Your task to perform on an android device: check storage Image 0: 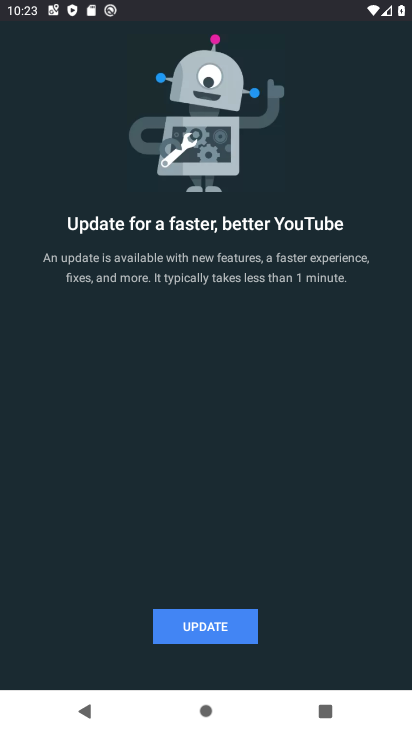
Step 0: drag from (243, 539) to (220, 132)
Your task to perform on an android device: check storage Image 1: 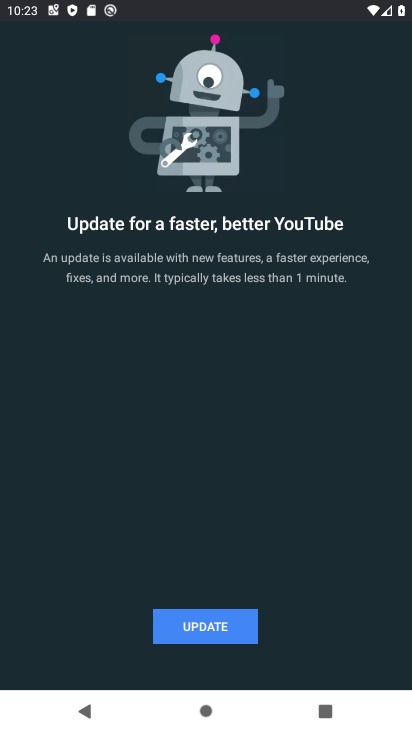
Step 1: press home button
Your task to perform on an android device: check storage Image 2: 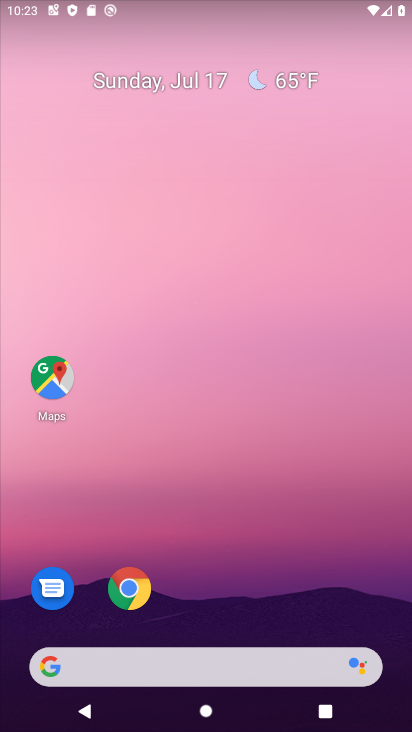
Step 2: drag from (217, 570) to (211, 72)
Your task to perform on an android device: check storage Image 3: 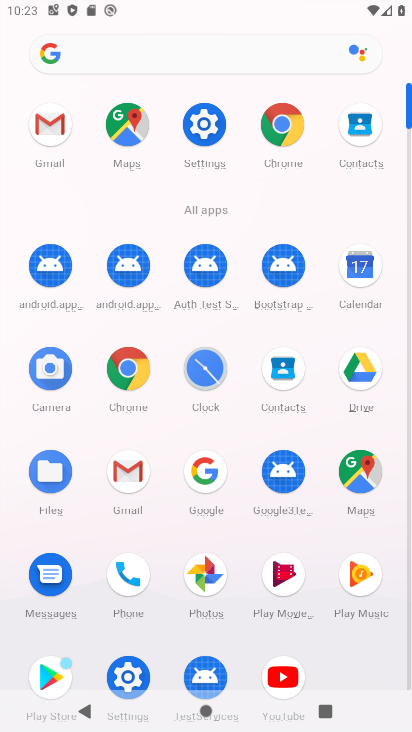
Step 3: click (202, 129)
Your task to perform on an android device: check storage Image 4: 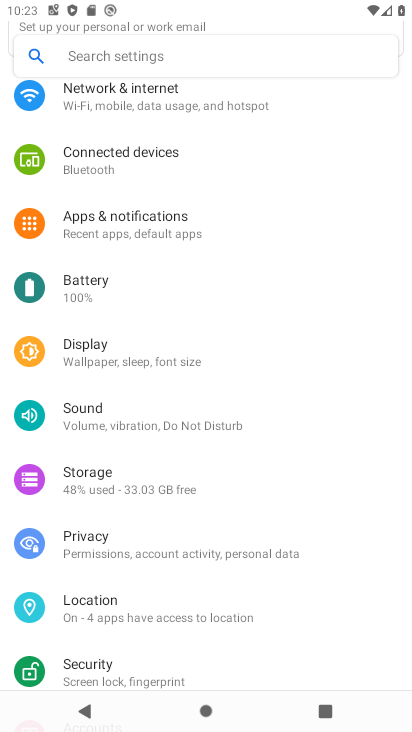
Step 4: click (98, 464)
Your task to perform on an android device: check storage Image 5: 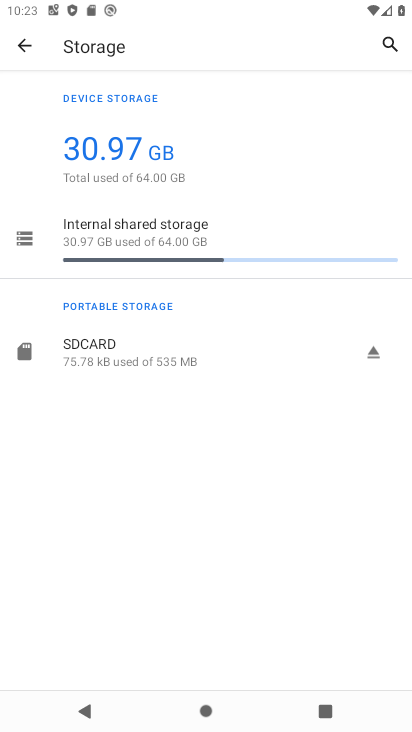
Step 5: task complete